Your task to perform on an android device: turn on priority inbox in the gmail app Image 0: 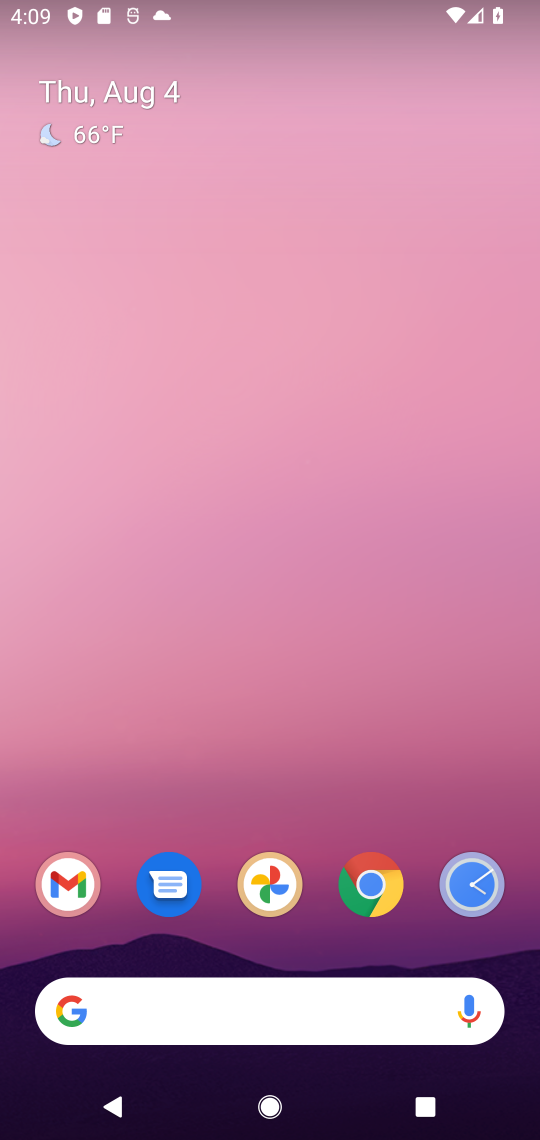
Step 0: drag from (299, 931) to (284, 270)
Your task to perform on an android device: turn on priority inbox in the gmail app Image 1: 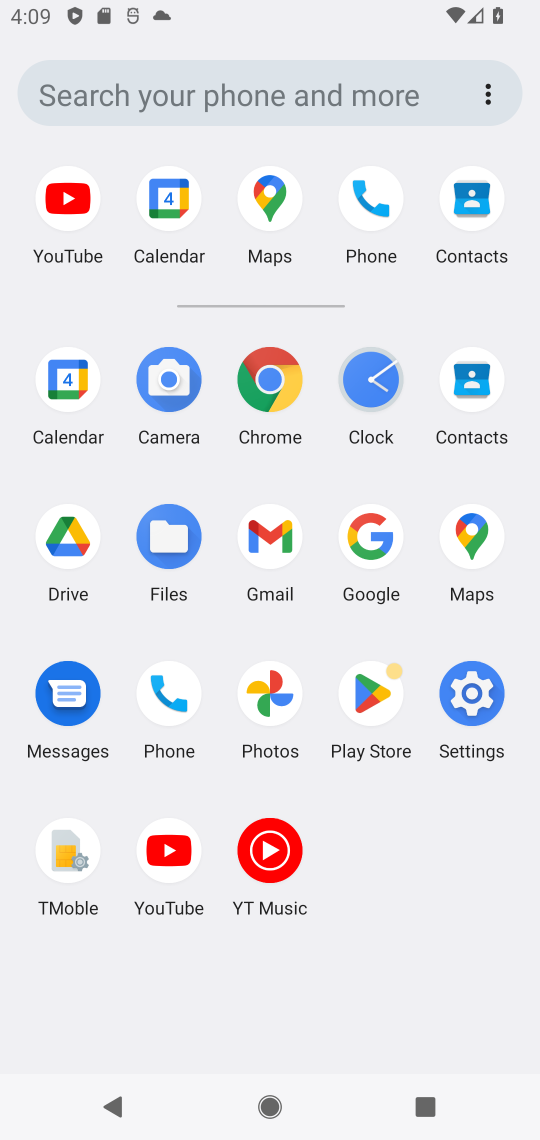
Step 1: click (262, 523)
Your task to perform on an android device: turn on priority inbox in the gmail app Image 2: 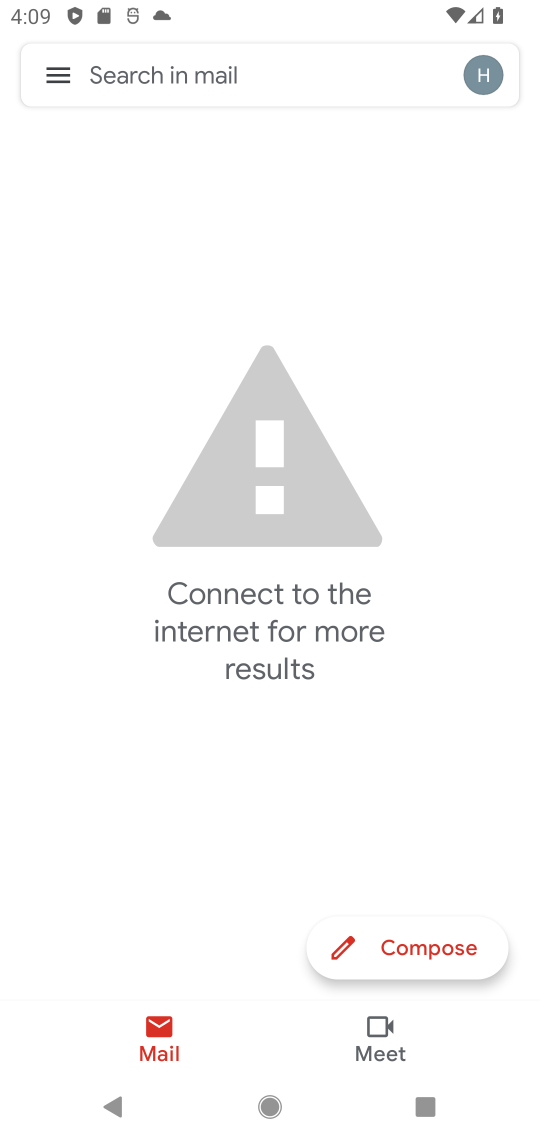
Step 2: click (63, 81)
Your task to perform on an android device: turn on priority inbox in the gmail app Image 3: 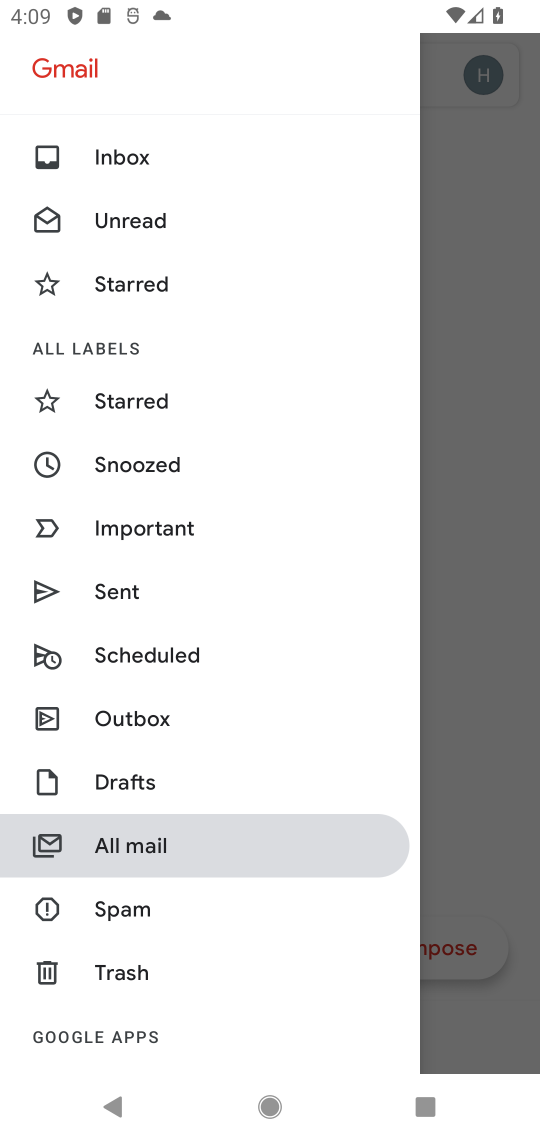
Step 3: drag from (131, 978) to (228, 450)
Your task to perform on an android device: turn on priority inbox in the gmail app Image 4: 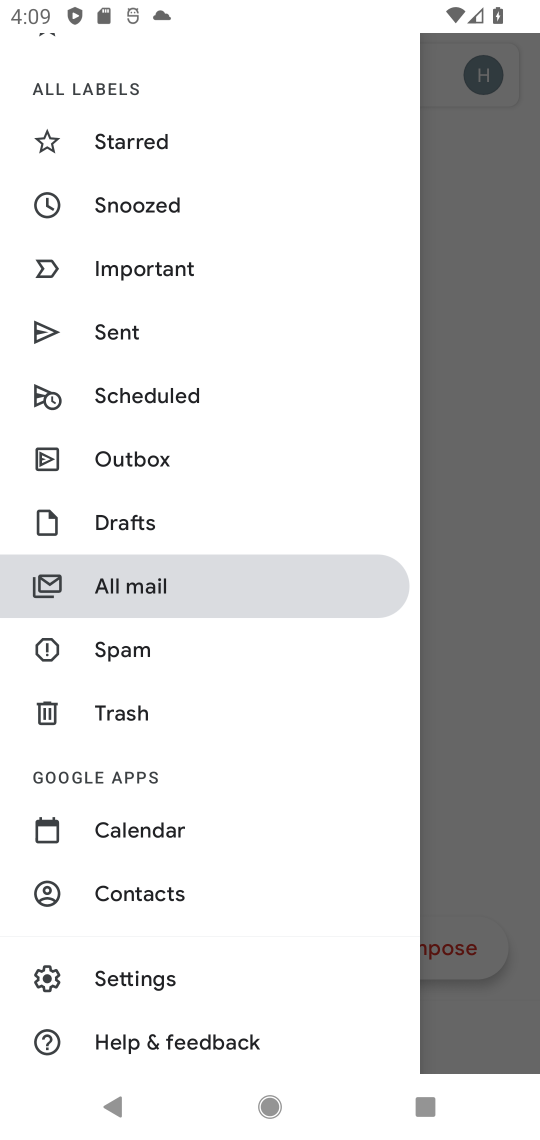
Step 4: click (128, 961)
Your task to perform on an android device: turn on priority inbox in the gmail app Image 5: 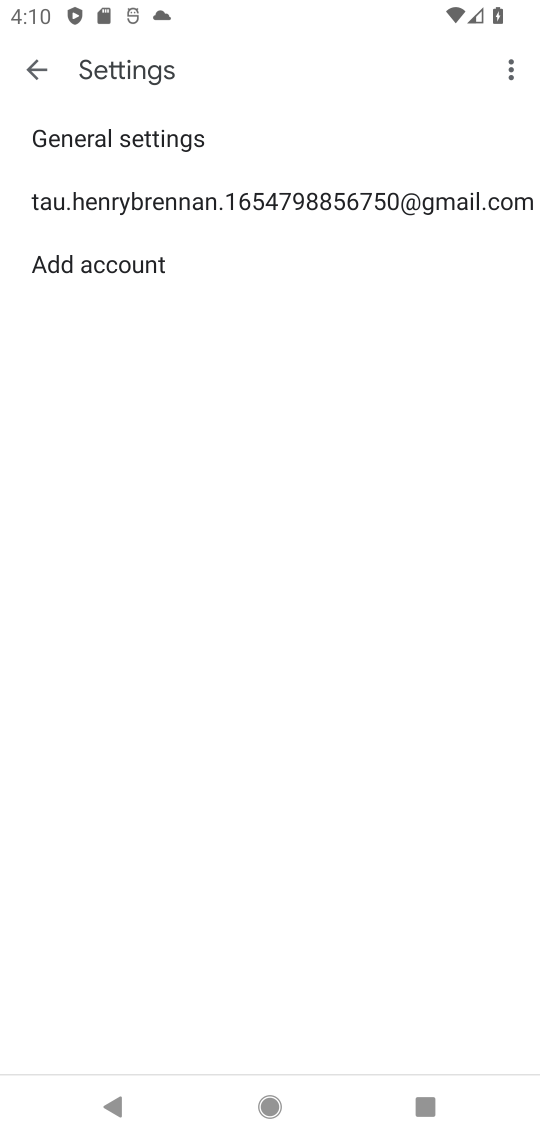
Step 5: click (165, 207)
Your task to perform on an android device: turn on priority inbox in the gmail app Image 6: 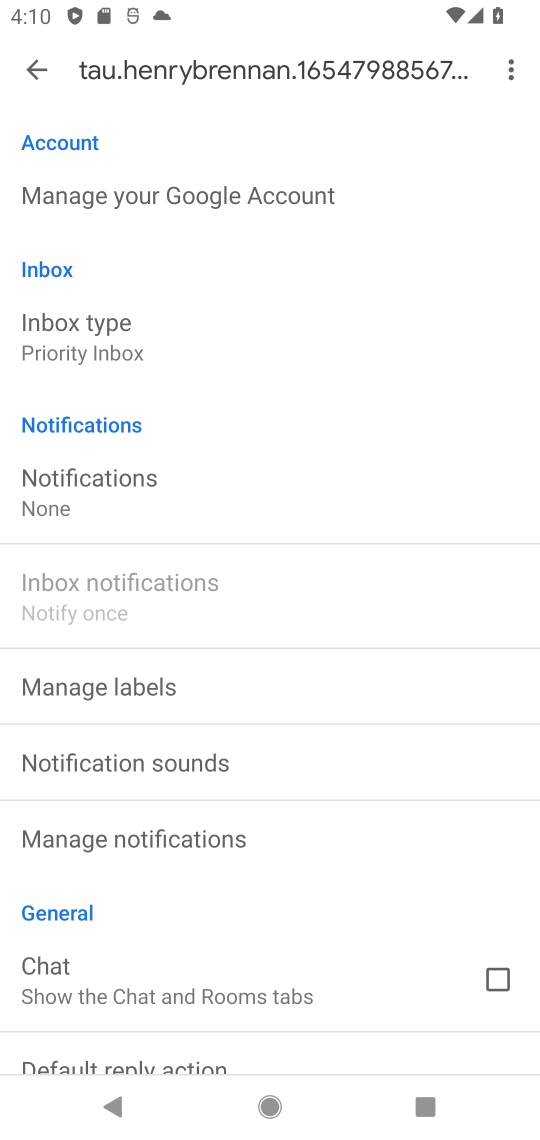
Step 6: click (100, 333)
Your task to perform on an android device: turn on priority inbox in the gmail app Image 7: 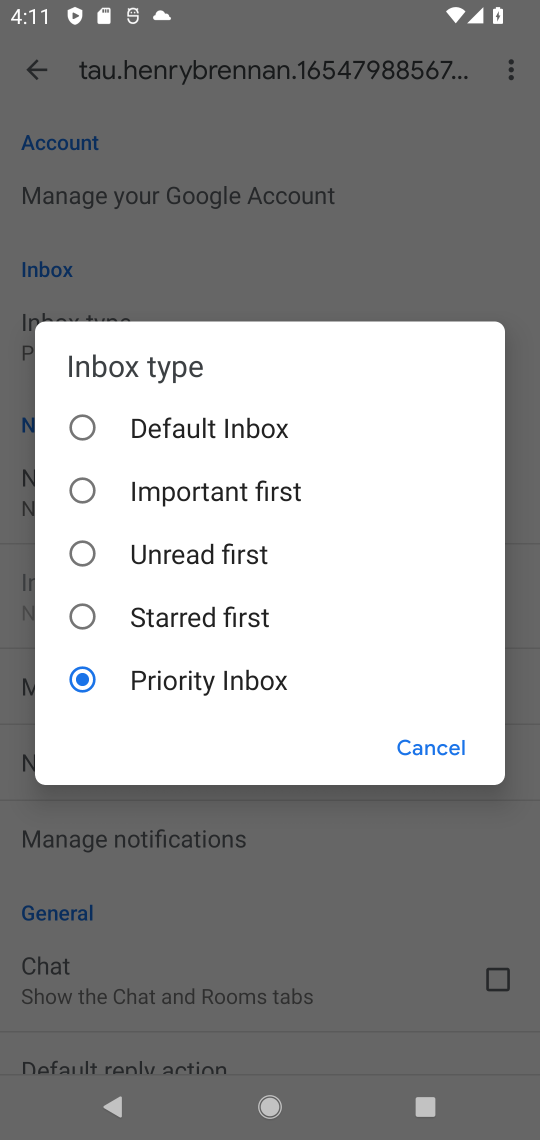
Step 7: task complete